Your task to perform on an android device: toggle wifi Image 0: 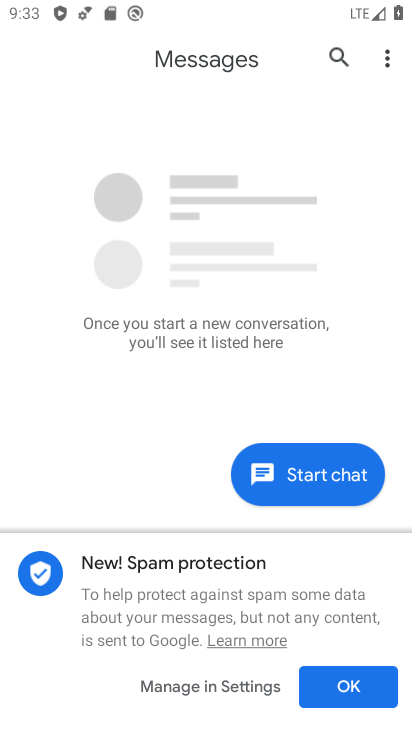
Step 0: press home button
Your task to perform on an android device: toggle wifi Image 1: 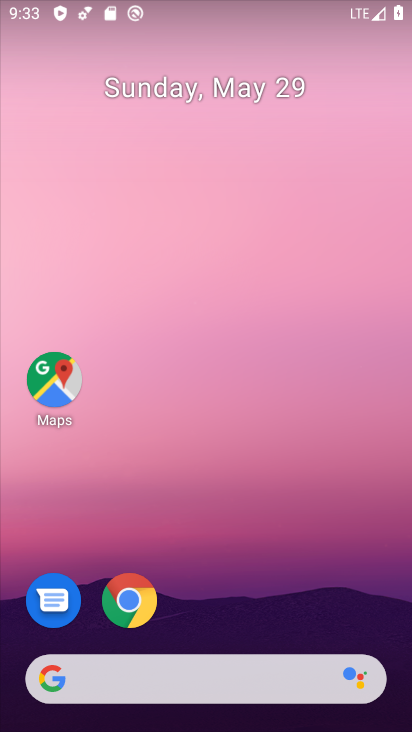
Step 1: drag from (223, 15) to (84, 457)
Your task to perform on an android device: toggle wifi Image 2: 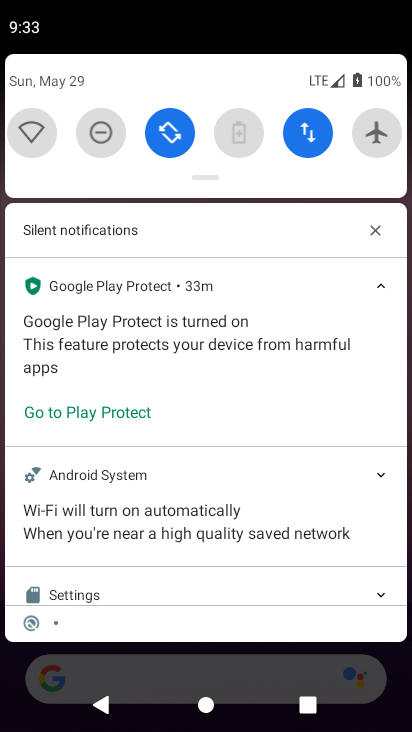
Step 2: click (26, 123)
Your task to perform on an android device: toggle wifi Image 3: 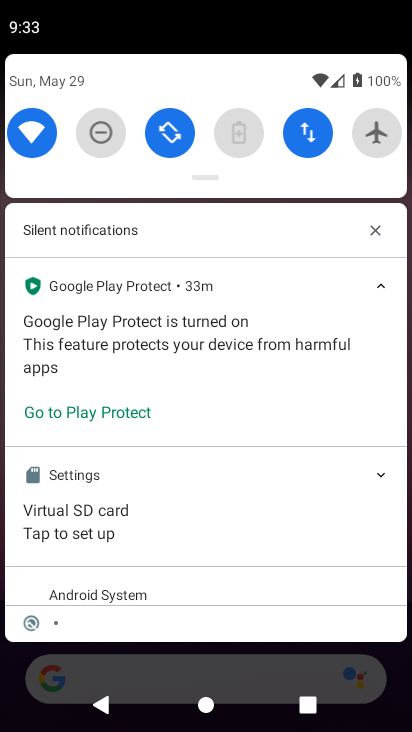
Step 3: task complete